Your task to perform on an android device: View the shopping cart on target. Image 0: 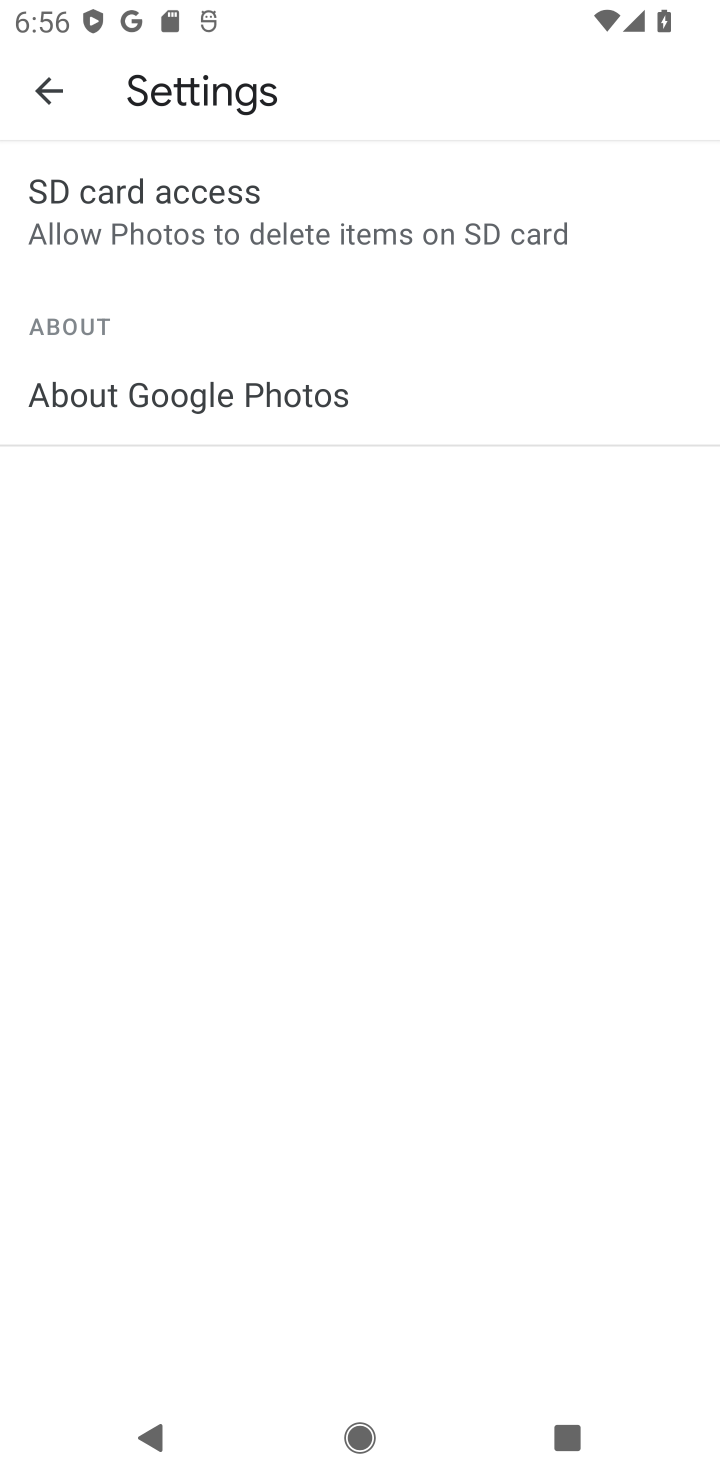
Step 0: press home button
Your task to perform on an android device: View the shopping cart on target. Image 1: 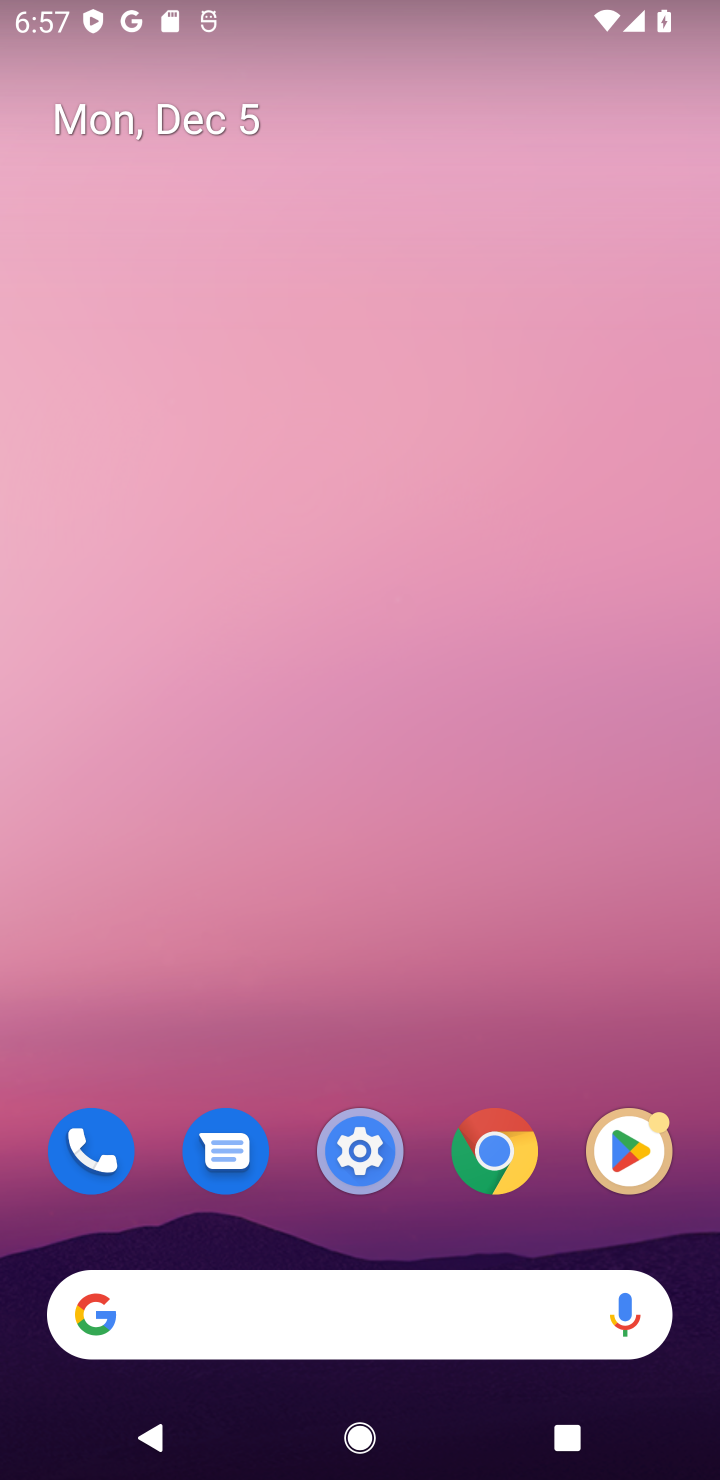
Step 1: click (529, 1302)
Your task to perform on an android device: View the shopping cart on target. Image 2: 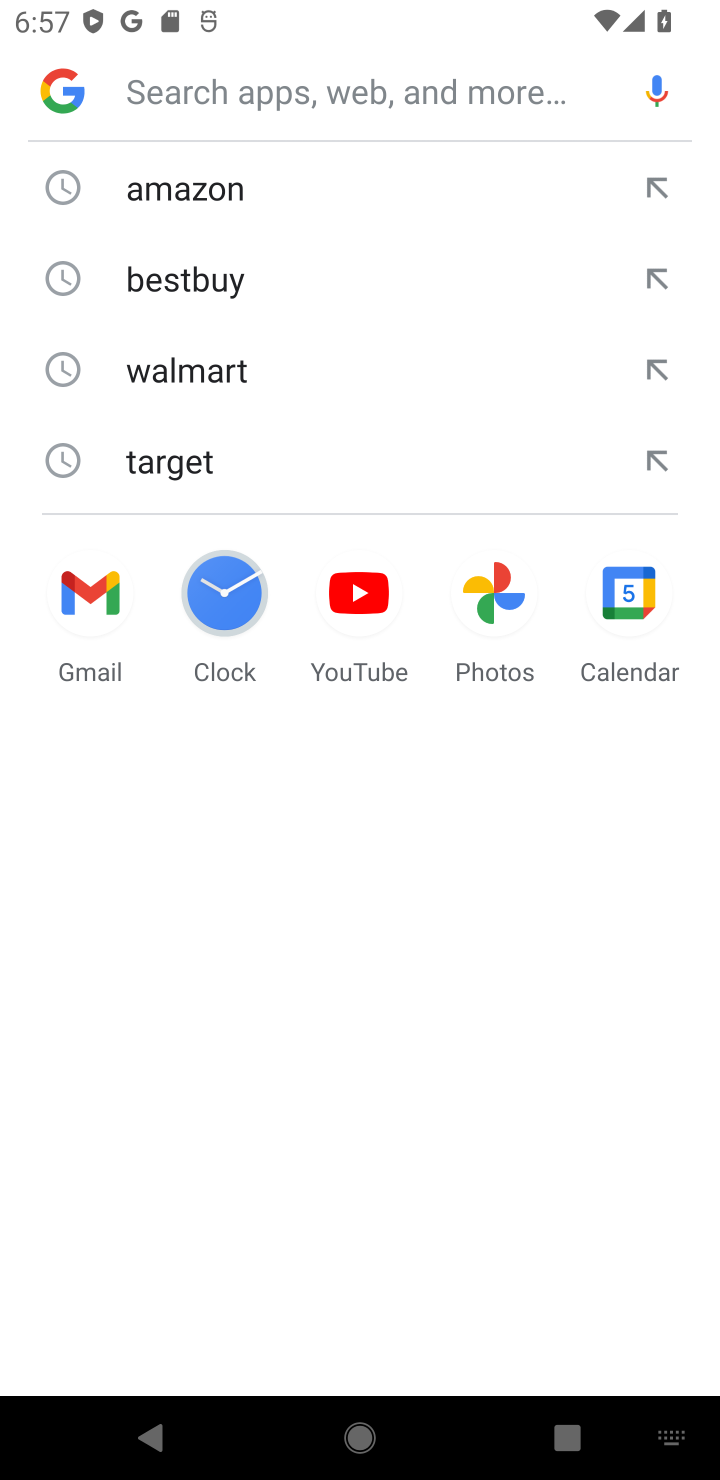
Step 2: type "target"
Your task to perform on an android device: View the shopping cart on target. Image 3: 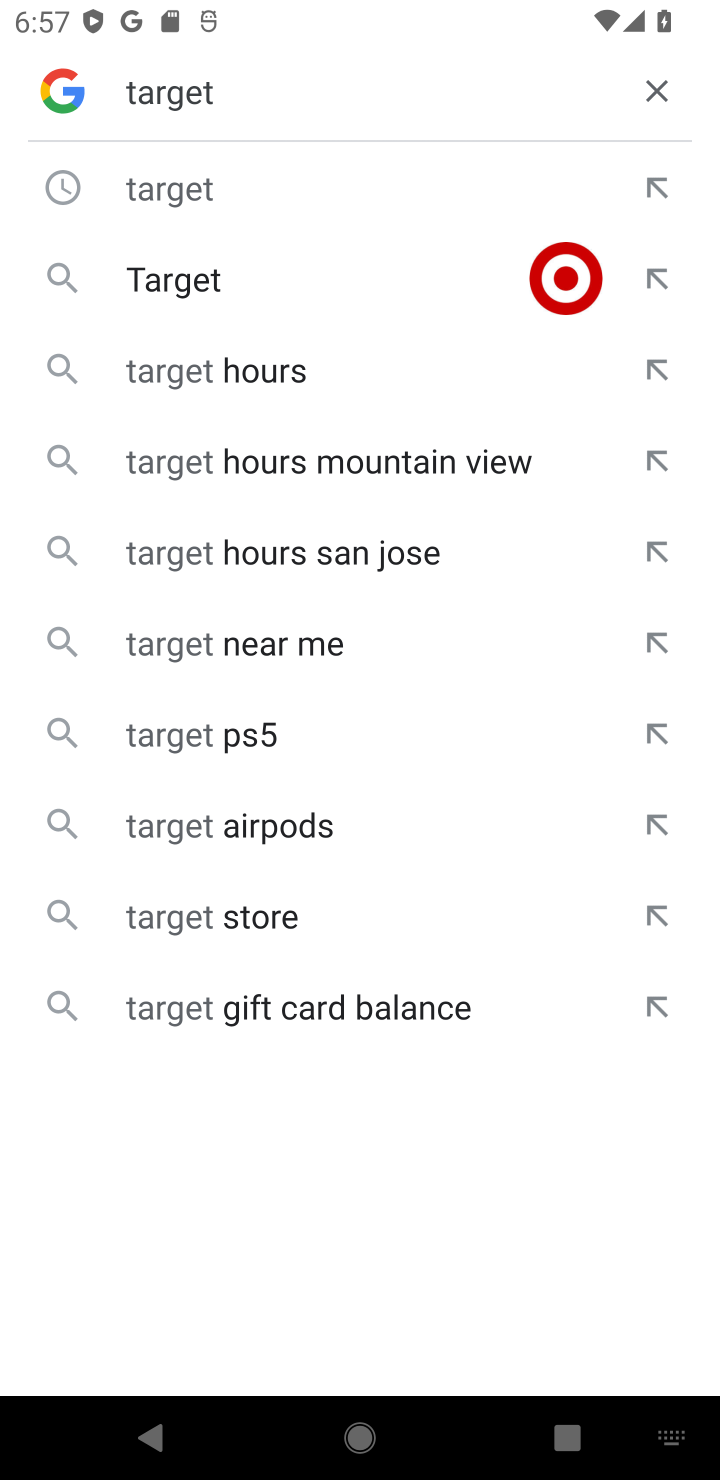
Step 3: click (171, 288)
Your task to perform on an android device: View the shopping cart on target. Image 4: 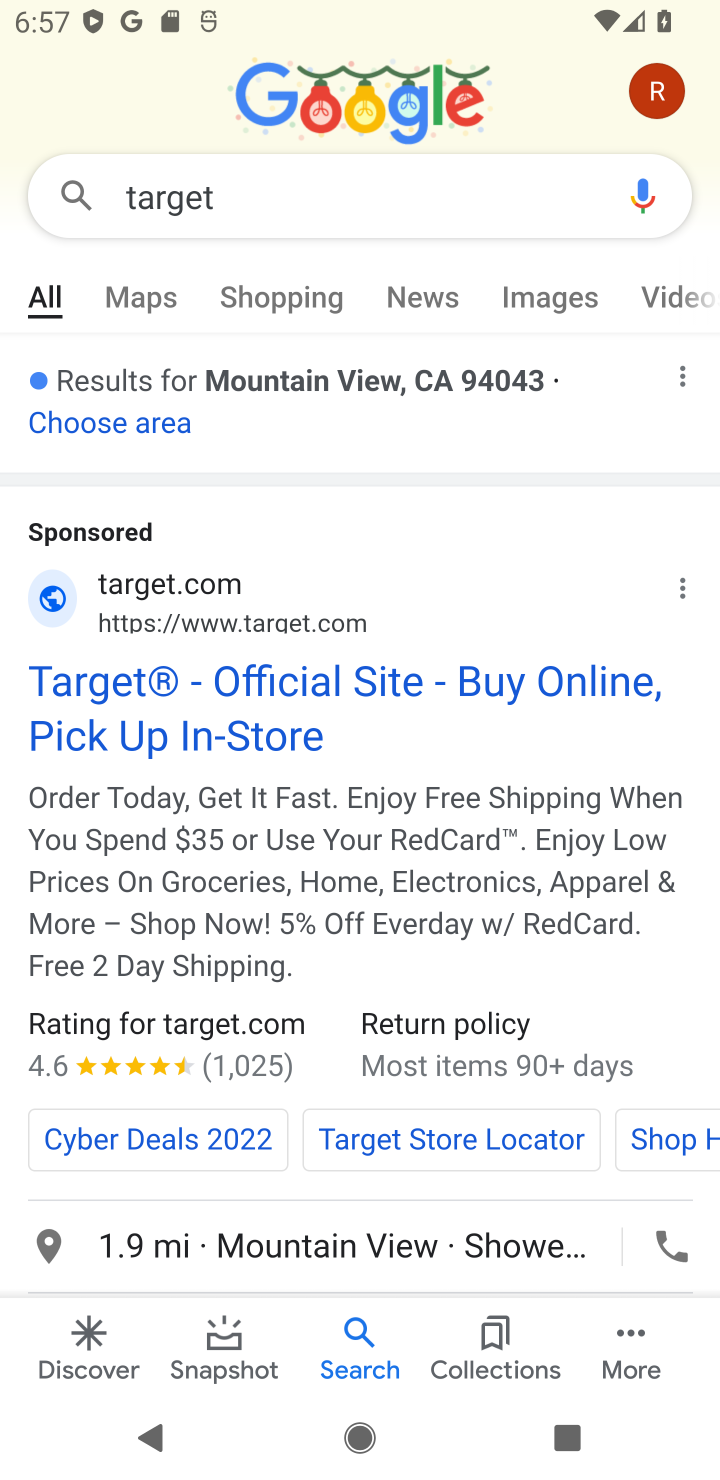
Step 4: click (145, 701)
Your task to perform on an android device: View the shopping cart on target. Image 5: 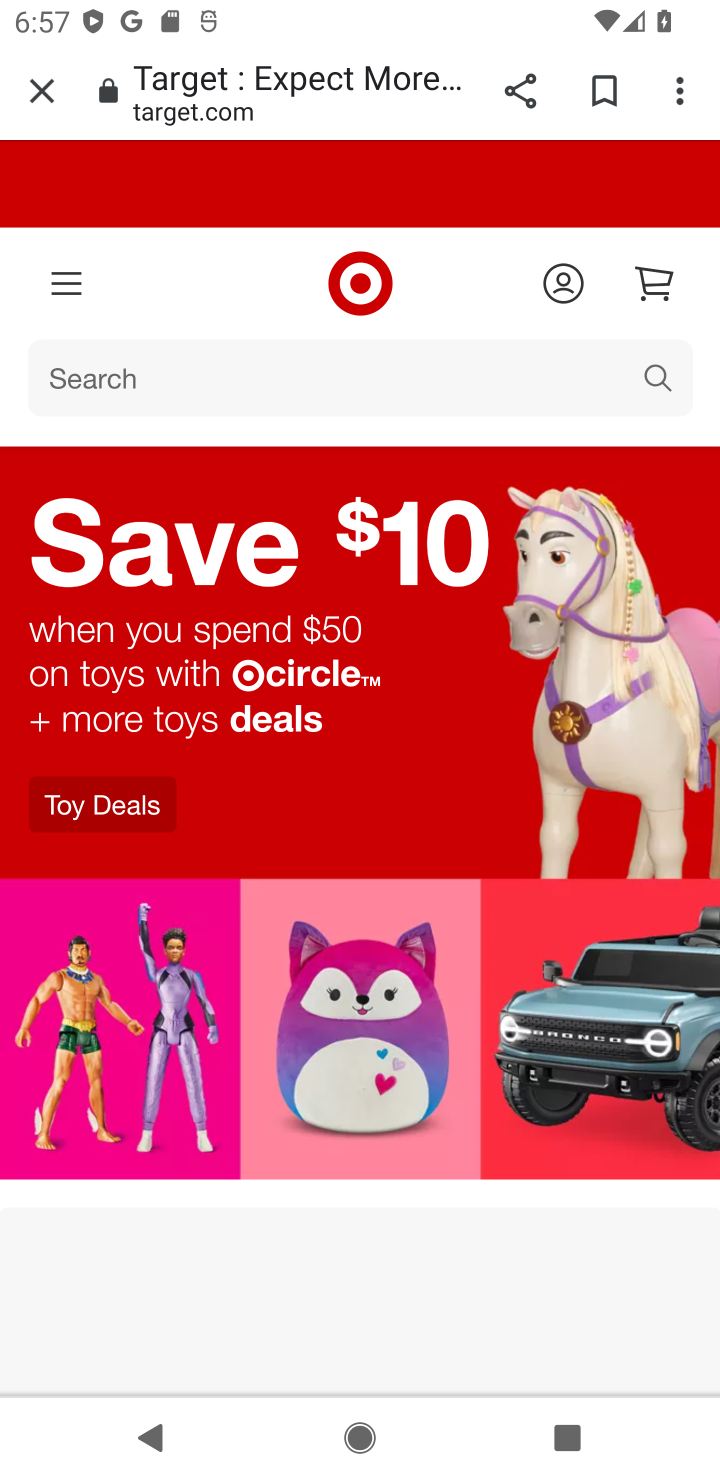
Step 5: click (227, 393)
Your task to perform on an android device: View the shopping cart on target. Image 6: 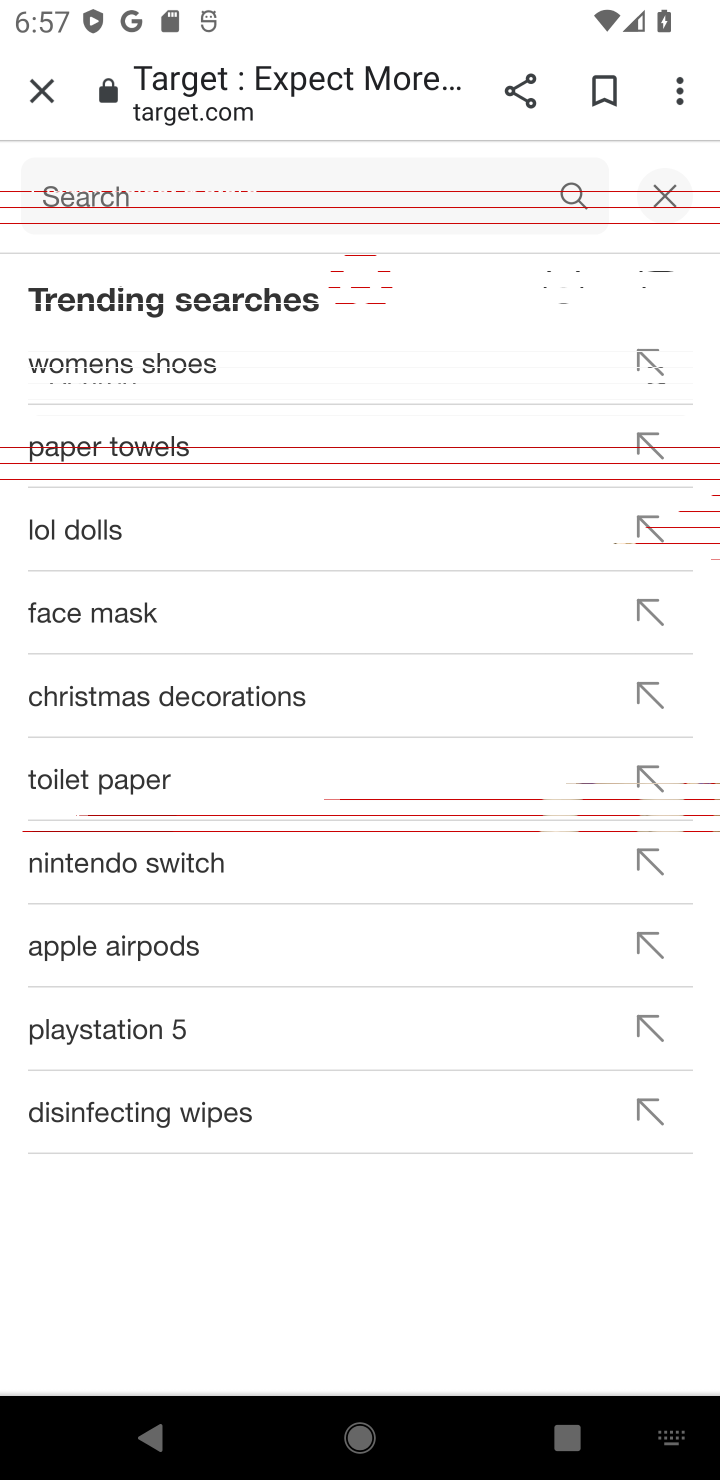
Step 6: click (661, 206)
Your task to perform on an android device: View the shopping cart on target. Image 7: 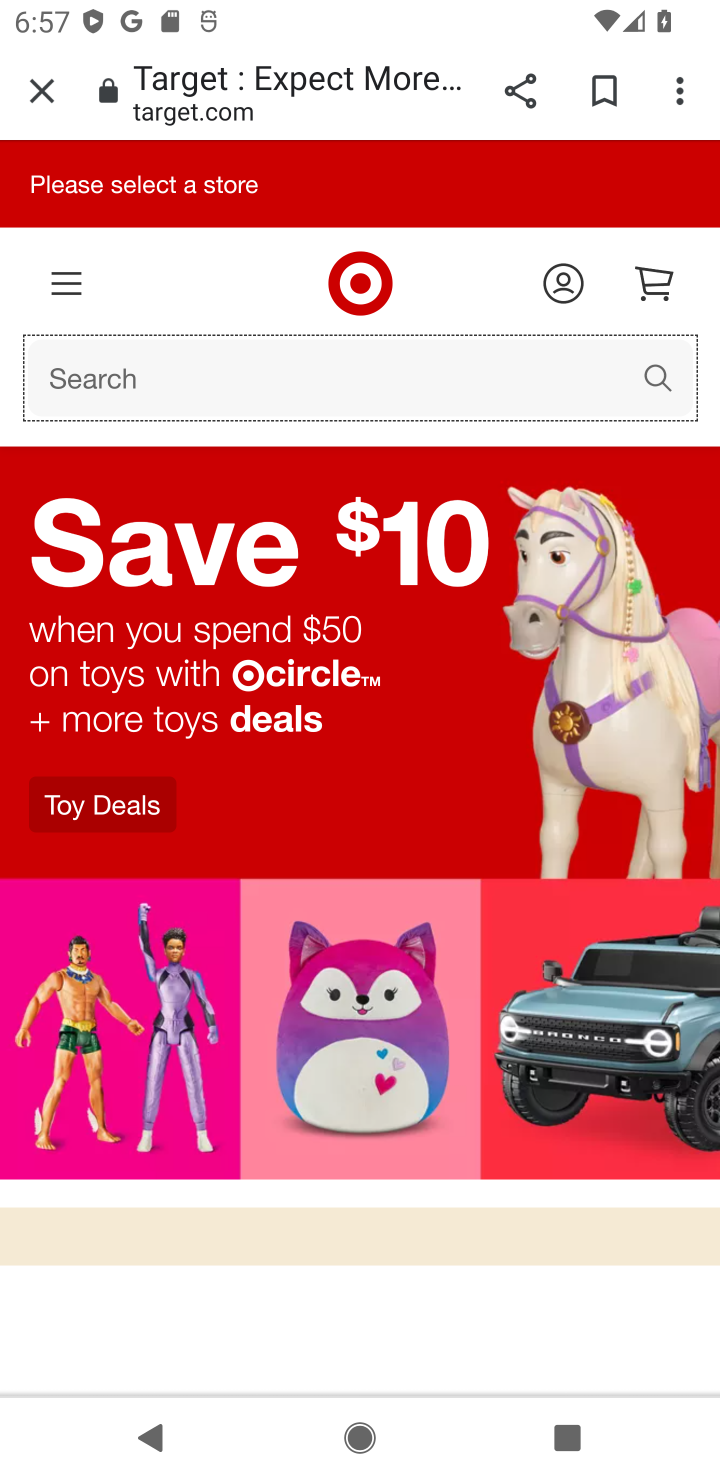
Step 7: click (633, 274)
Your task to perform on an android device: View the shopping cart on target. Image 8: 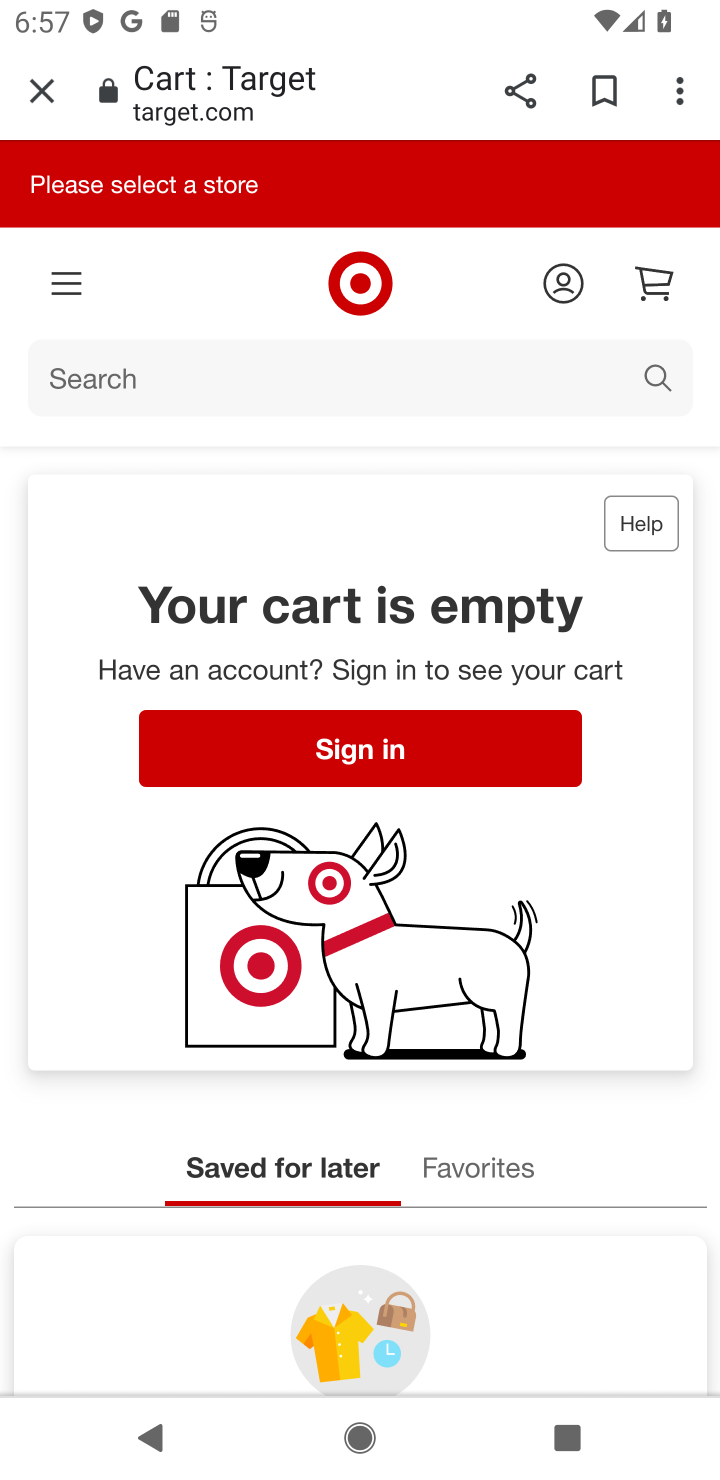
Step 8: click (278, 343)
Your task to perform on an android device: View the shopping cart on target. Image 9: 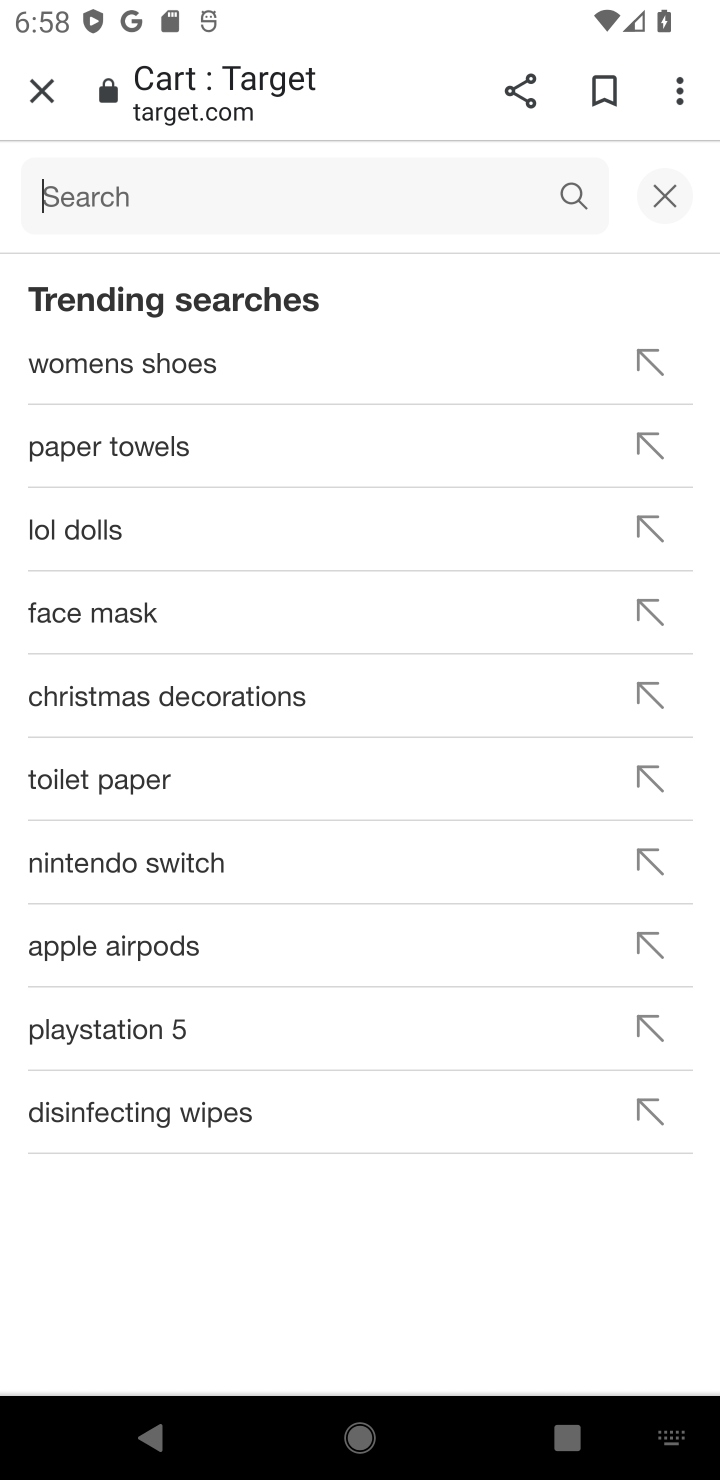
Step 9: task complete